Your task to perform on an android device: Search for 12ft 120W LED tube light on home depot Image 0: 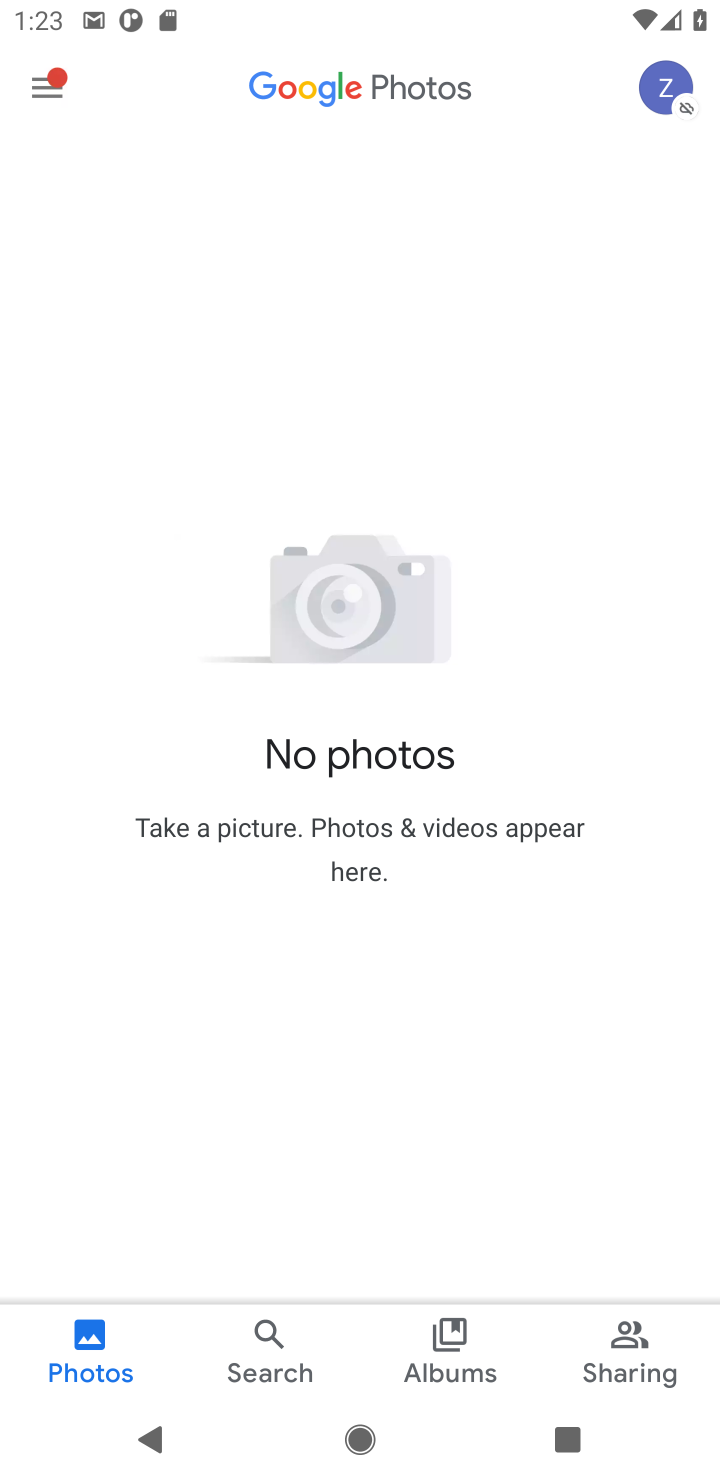
Step 0: click (260, 1344)
Your task to perform on an android device: Search for 12ft 120W LED tube light on home depot Image 1: 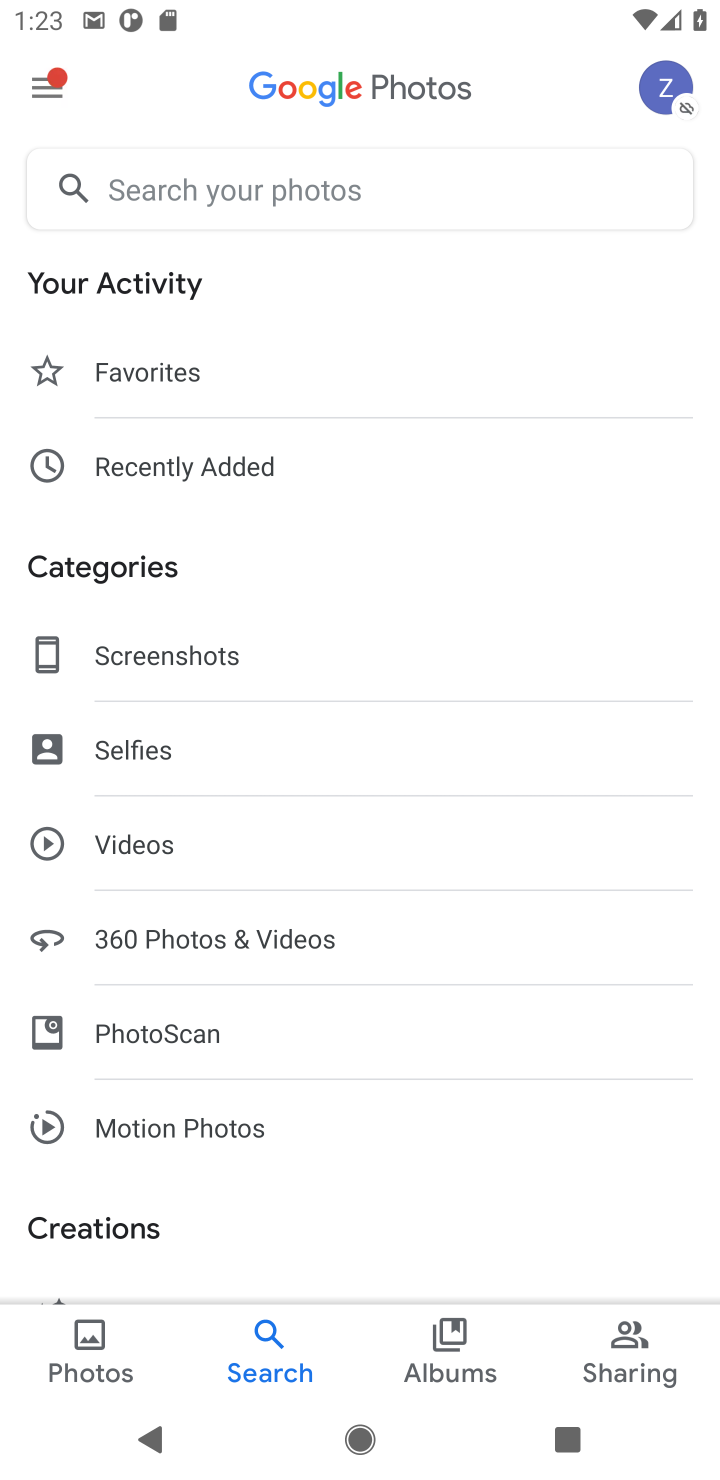
Step 1: task complete